Your task to perform on an android device: Go to settings Image 0: 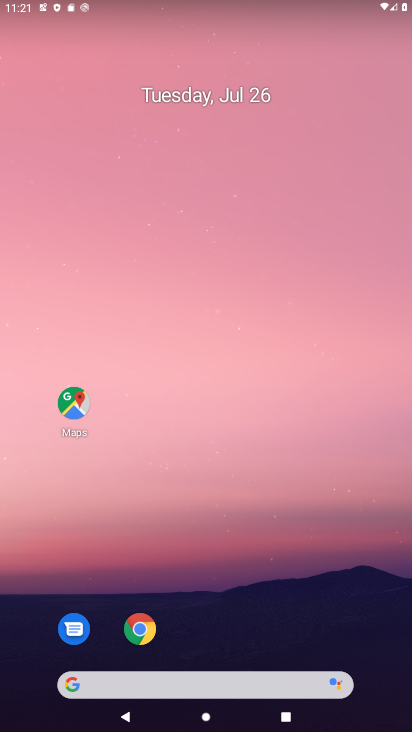
Step 0: drag from (252, 648) to (220, 67)
Your task to perform on an android device: Go to settings Image 1: 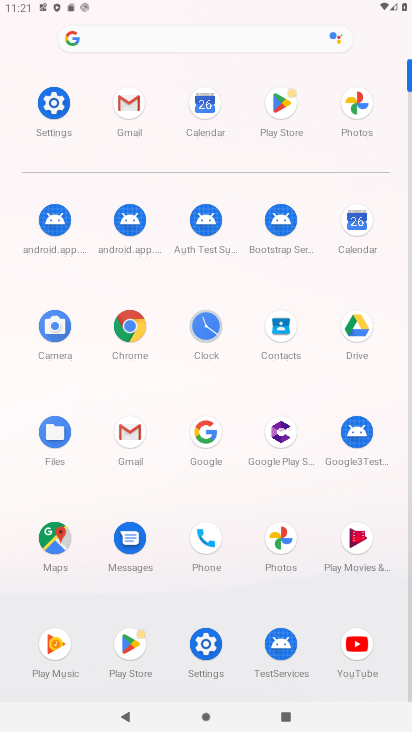
Step 1: click (49, 128)
Your task to perform on an android device: Go to settings Image 2: 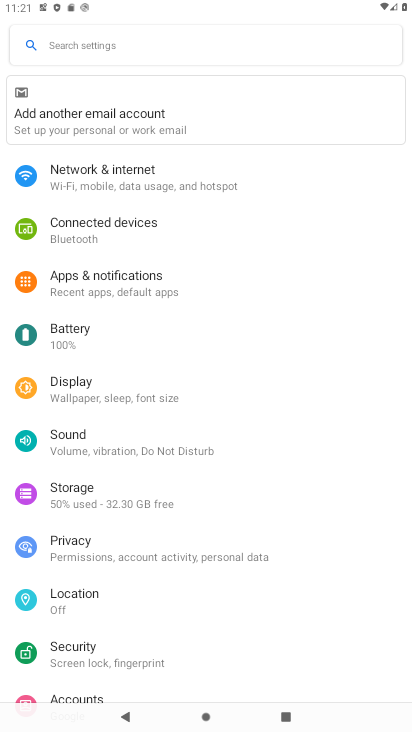
Step 2: task complete